Your task to perform on an android device: Is it going to rain today? Image 0: 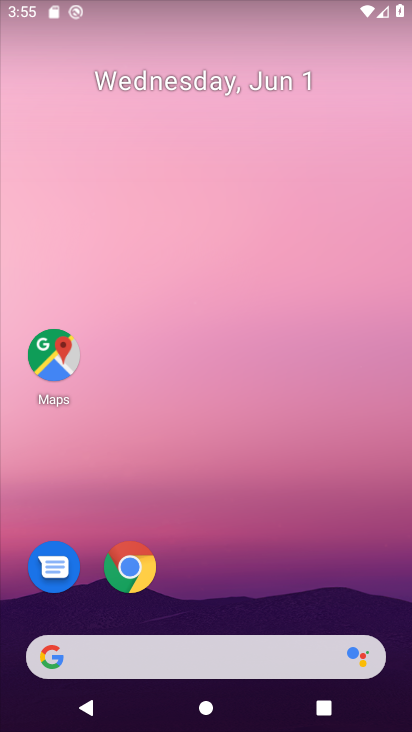
Step 0: drag from (232, 606) to (177, 94)
Your task to perform on an android device: Is it going to rain today? Image 1: 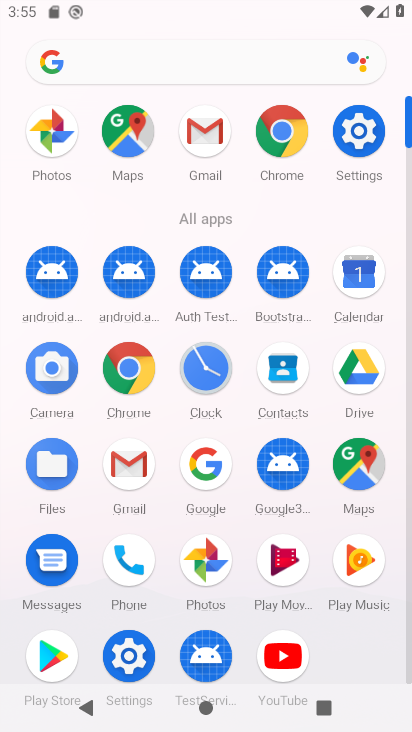
Step 1: click (116, 62)
Your task to perform on an android device: Is it going to rain today? Image 2: 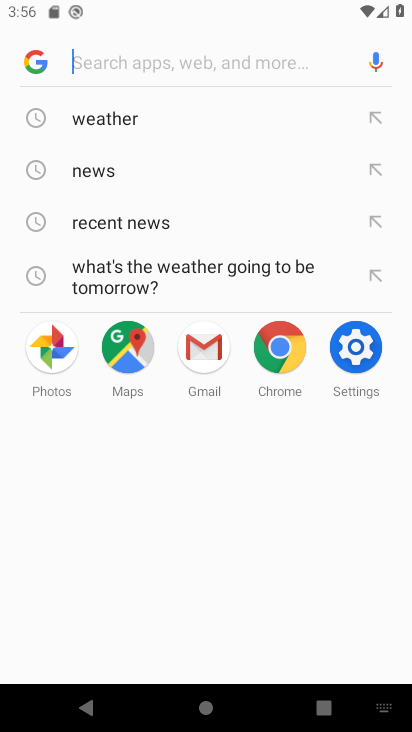
Step 2: type "is it going to rain today"
Your task to perform on an android device: Is it going to rain today? Image 3: 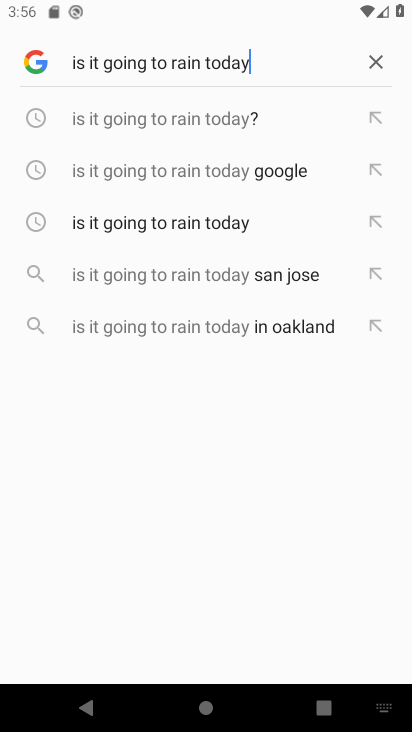
Step 3: click (91, 126)
Your task to perform on an android device: Is it going to rain today? Image 4: 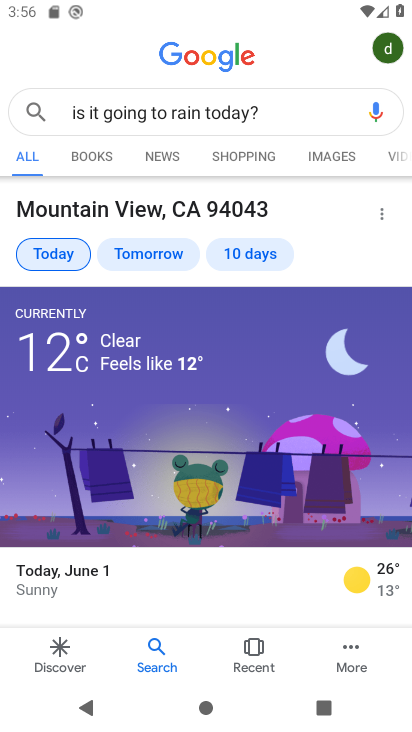
Step 4: task complete